Your task to perform on an android device: toggle location history Image 0: 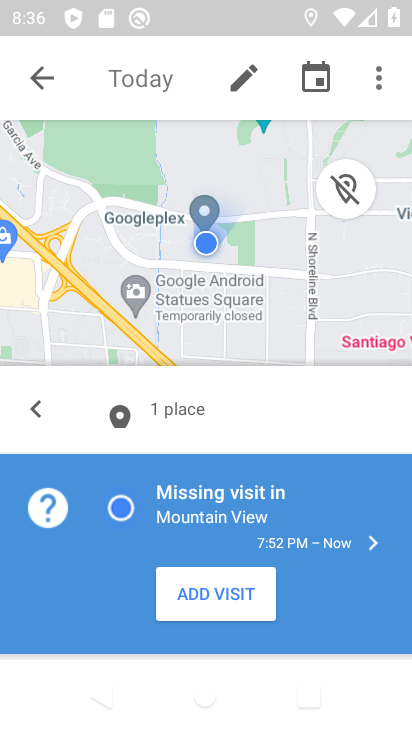
Step 0: press home button
Your task to perform on an android device: toggle location history Image 1: 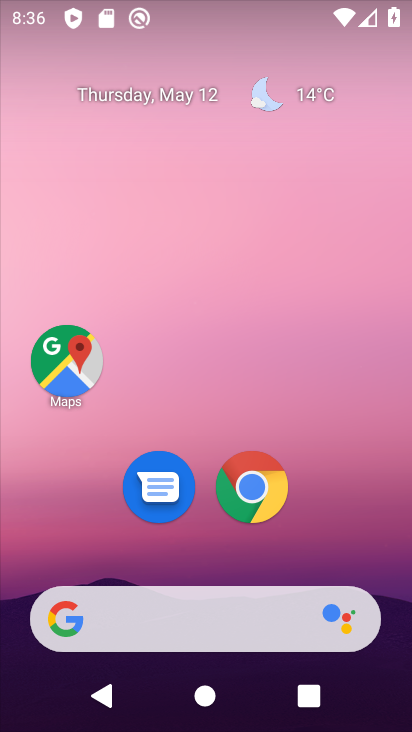
Step 1: drag from (30, 602) to (281, 142)
Your task to perform on an android device: toggle location history Image 2: 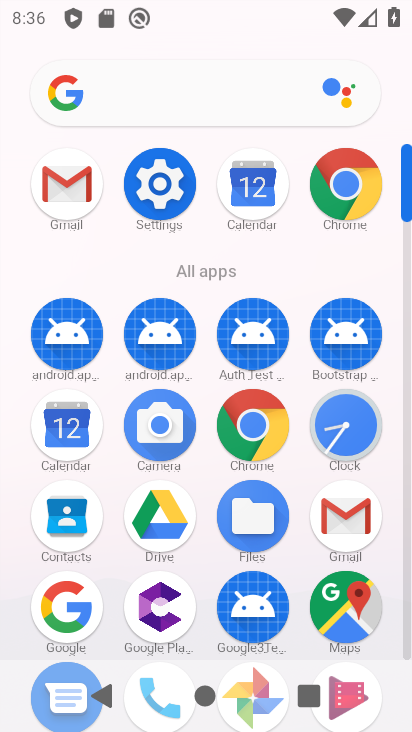
Step 2: click (158, 194)
Your task to perform on an android device: toggle location history Image 3: 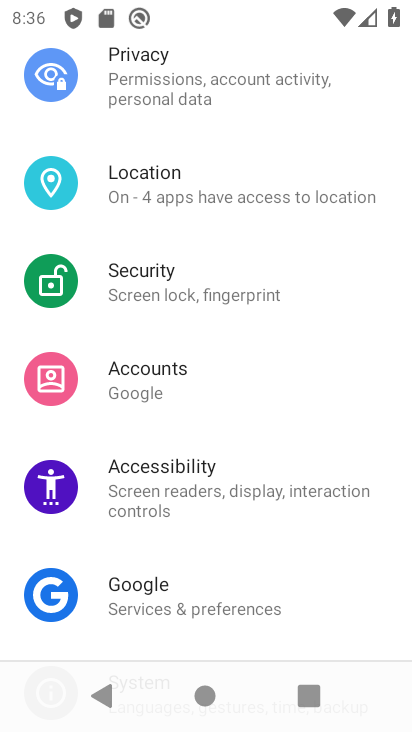
Step 3: click (122, 195)
Your task to perform on an android device: toggle location history Image 4: 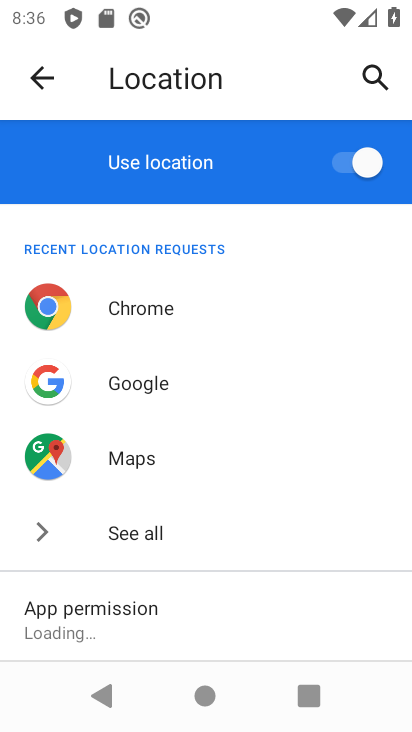
Step 4: drag from (18, 543) to (234, 96)
Your task to perform on an android device: toggle location history Image 5: 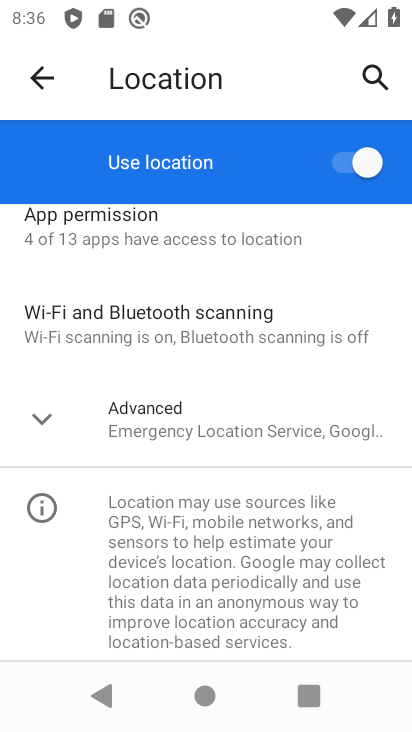
Step 5: click (177, 423)
Your task to perform on an android device: toggle location history Image 6: 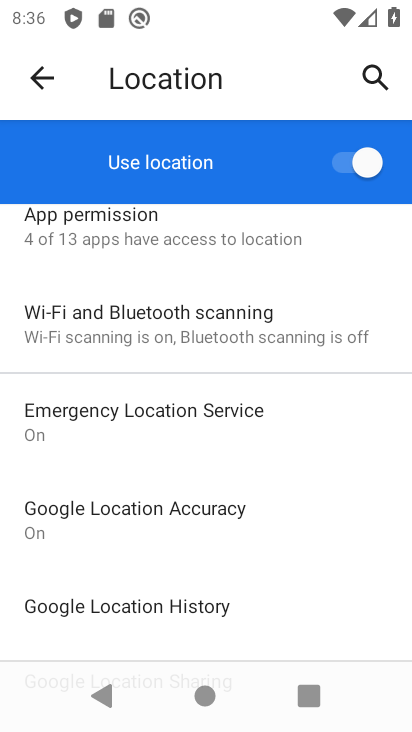
Step 6: click (95, 620)
Your task to perform on an android device: toggle location history Image 7: 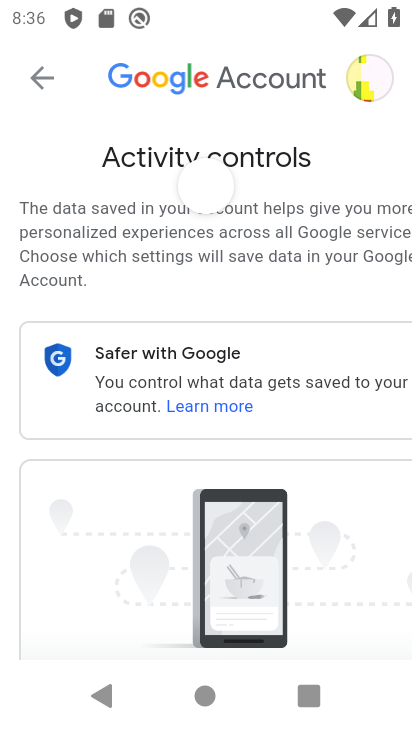
Step 7: drag from (35, 643) to (317, 141)
Your task to perform on an android device: toggle location history Image 8: 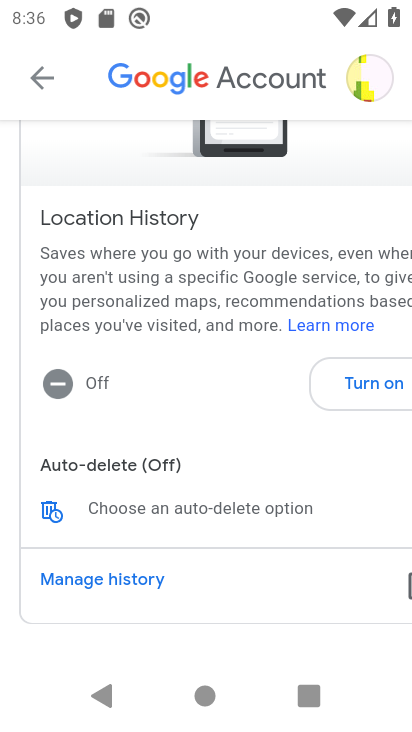
Step 8: click (341, 374)
Your task to perform on an android device: toggle location history Image 9: 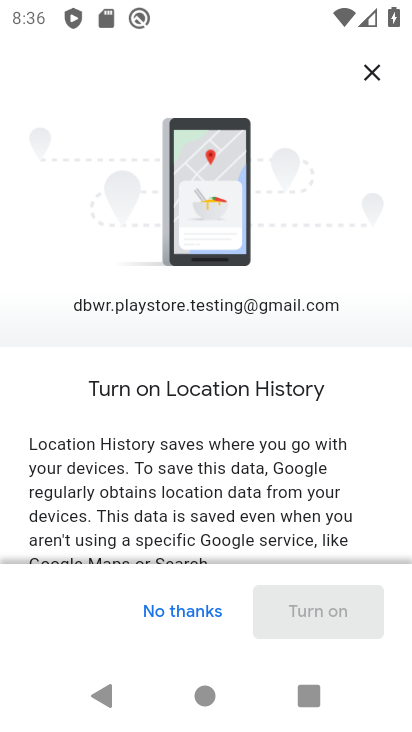
Step 9: drag from (4, 533) to (334, 56)
Your task to perform on an android device: toggle location history Image 10: 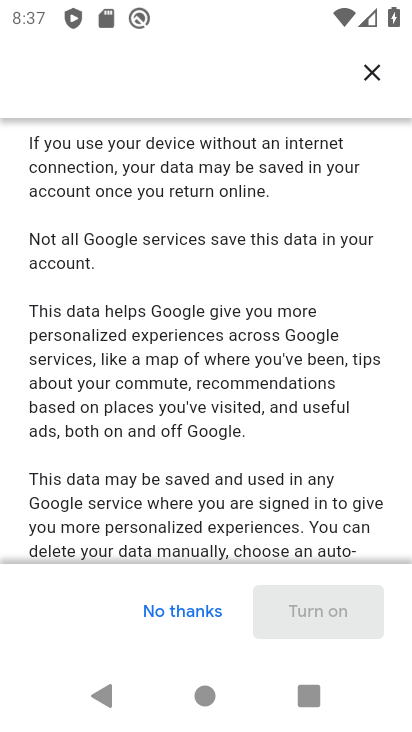
Step 10: drag from (57, 540) to (361, 114)
Your task to perform on an android device: toggle location history Image 11: 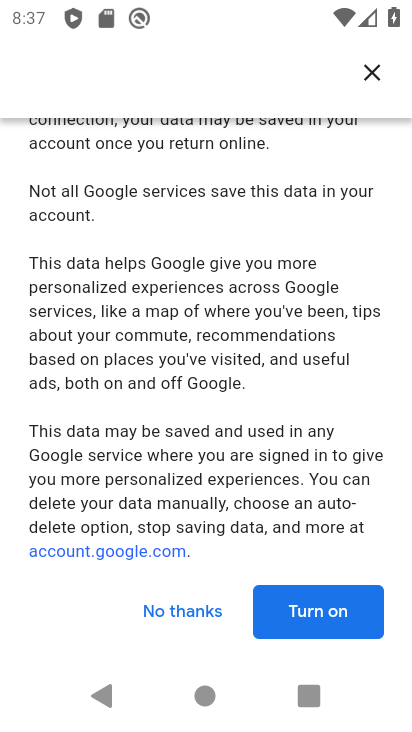
Step 11: click (339, 610)
Your task to perform on an android device: toggle location history Image 12: 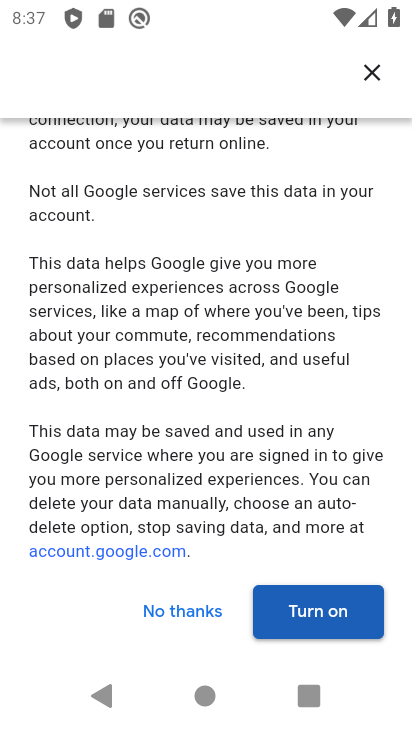
Step 12: click (339, 610)
Your task to perform on an android device: toggle location history Image 13: 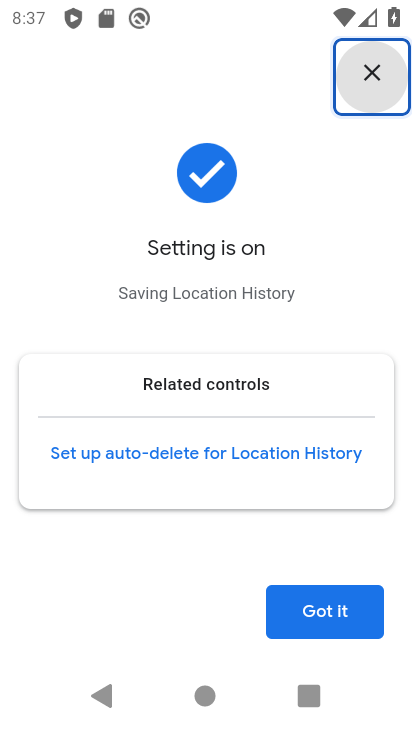
Step 13: click (379, 609)
Your task to perform on an android device: toggle location history Image 14: 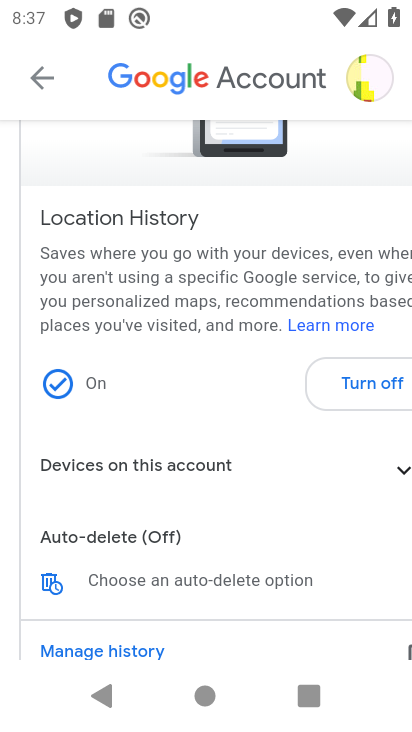
Step 14: task complete